Your task to perform on an android device: Open calendar and show me the second week of next month Image 0: 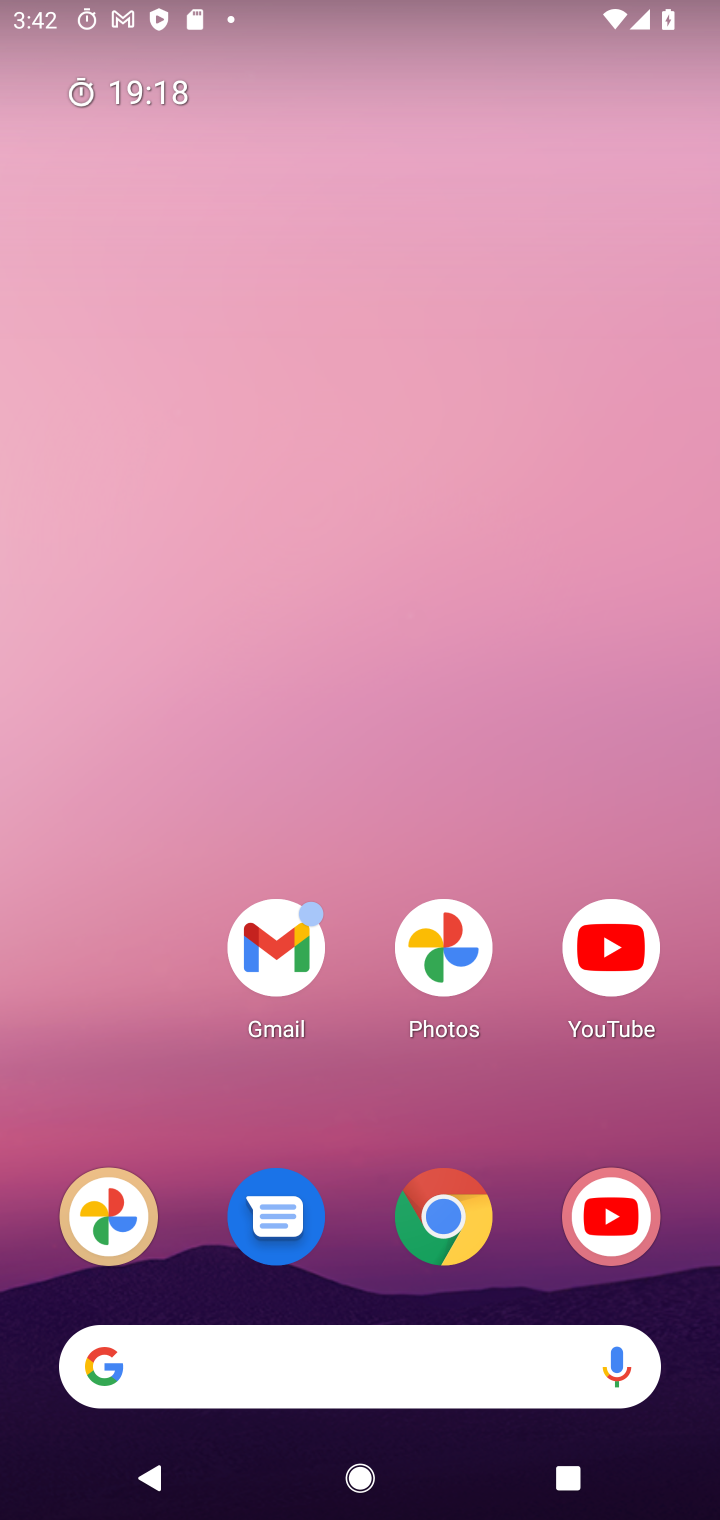
Step 0: drag from (392, 584) to (538, 326)
Your task to perform on an android device: Open calendar and show me the second week of next month Image 1: 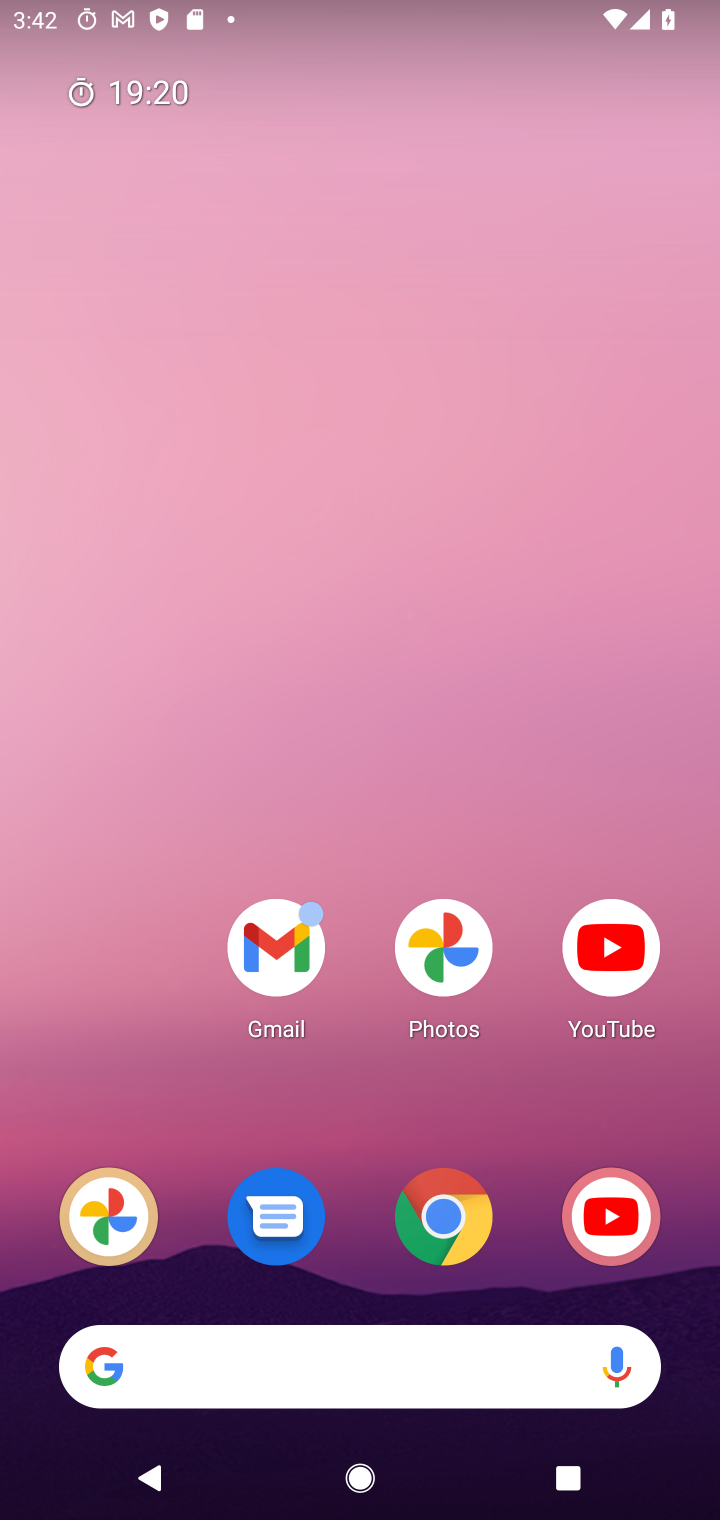
Step 1: drag from (1, 1410) to (635, 321)
Your task to perform on an android device: Open calendar and show me the second week of next month Image 2: 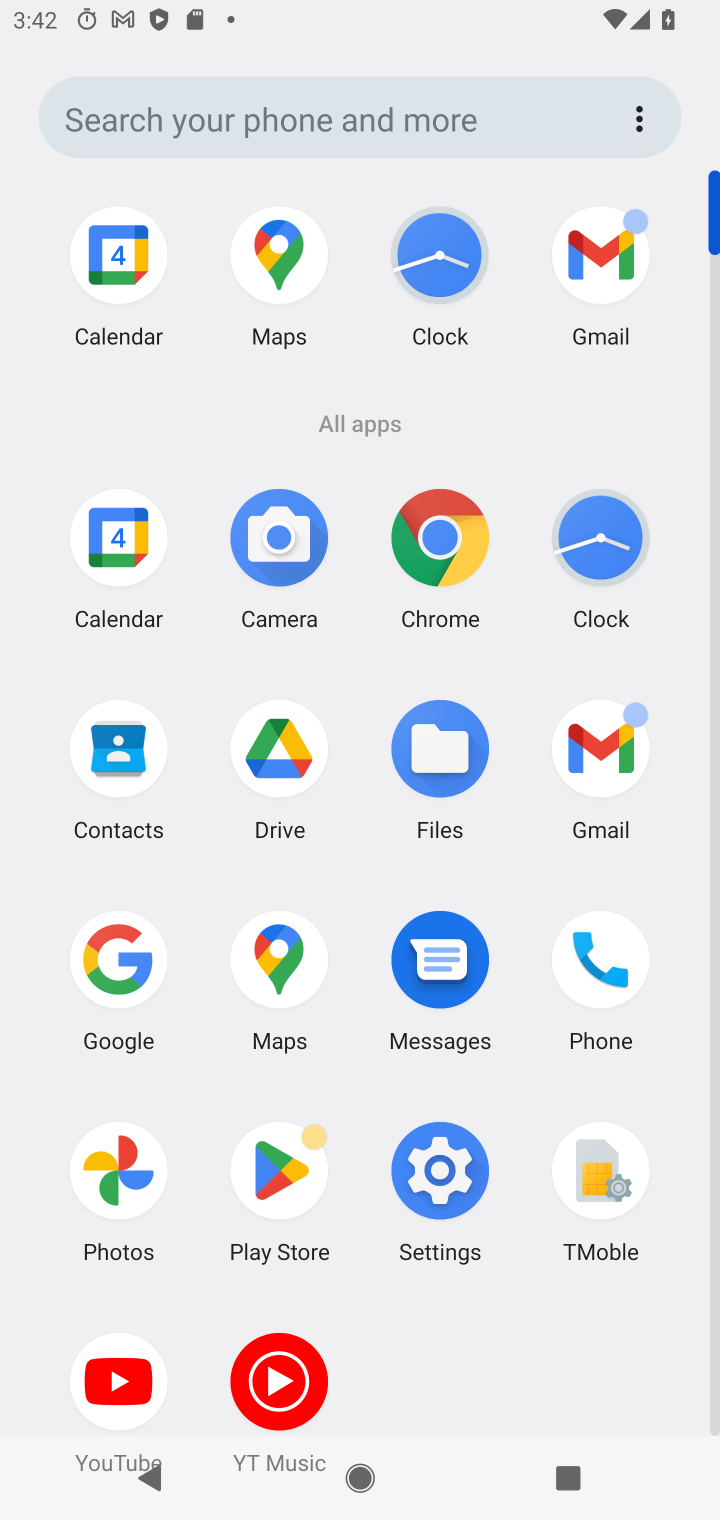
Step 2: click (108, 550)
Your task to perform on an android device: Open calendar and show me the second week of next month Image 3: 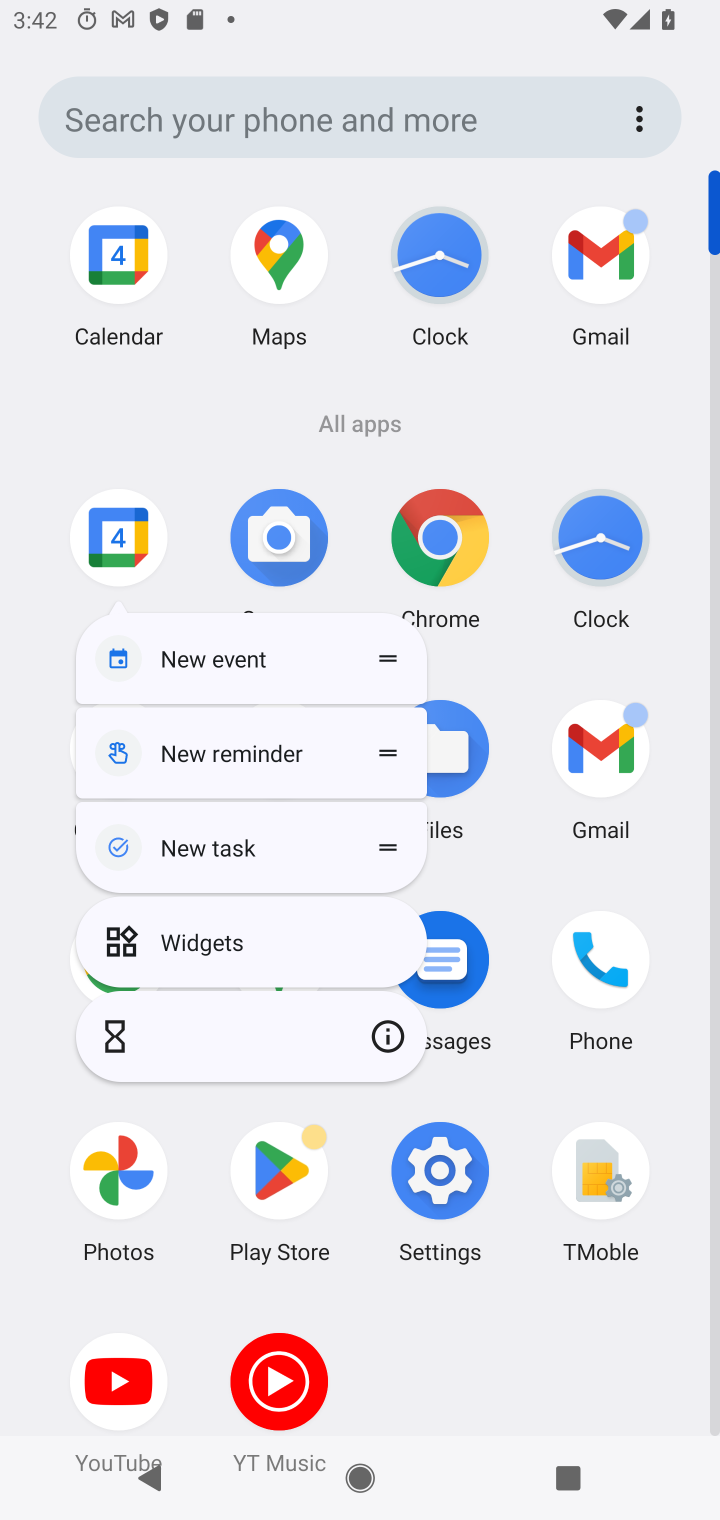
Step 3: click (108, 550)
Your task to perform on an android device: Open calendar and show me the second week of next month Image 4: 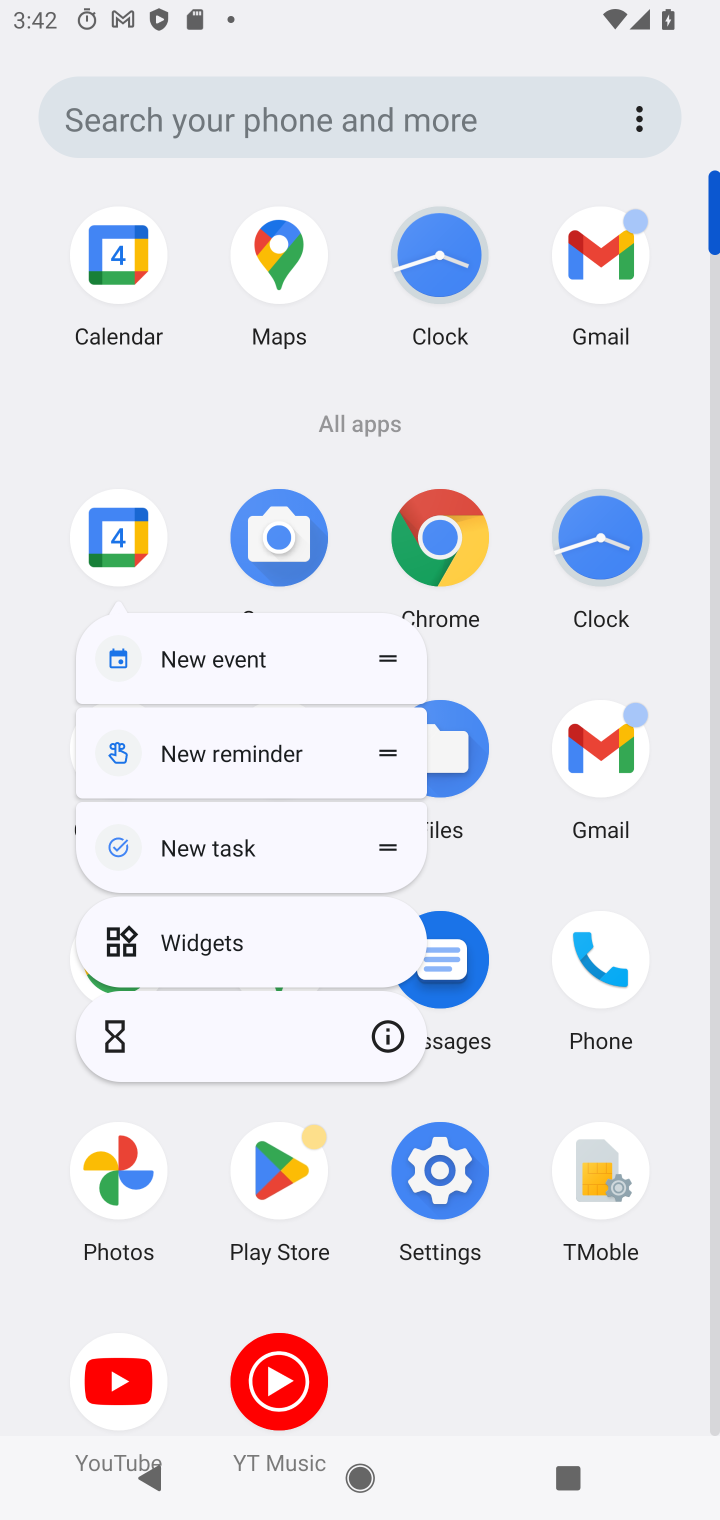
Step 4: click (143, 274)
Your task to perform on an android device: Open calendar and show me the second week of next month Image 5: 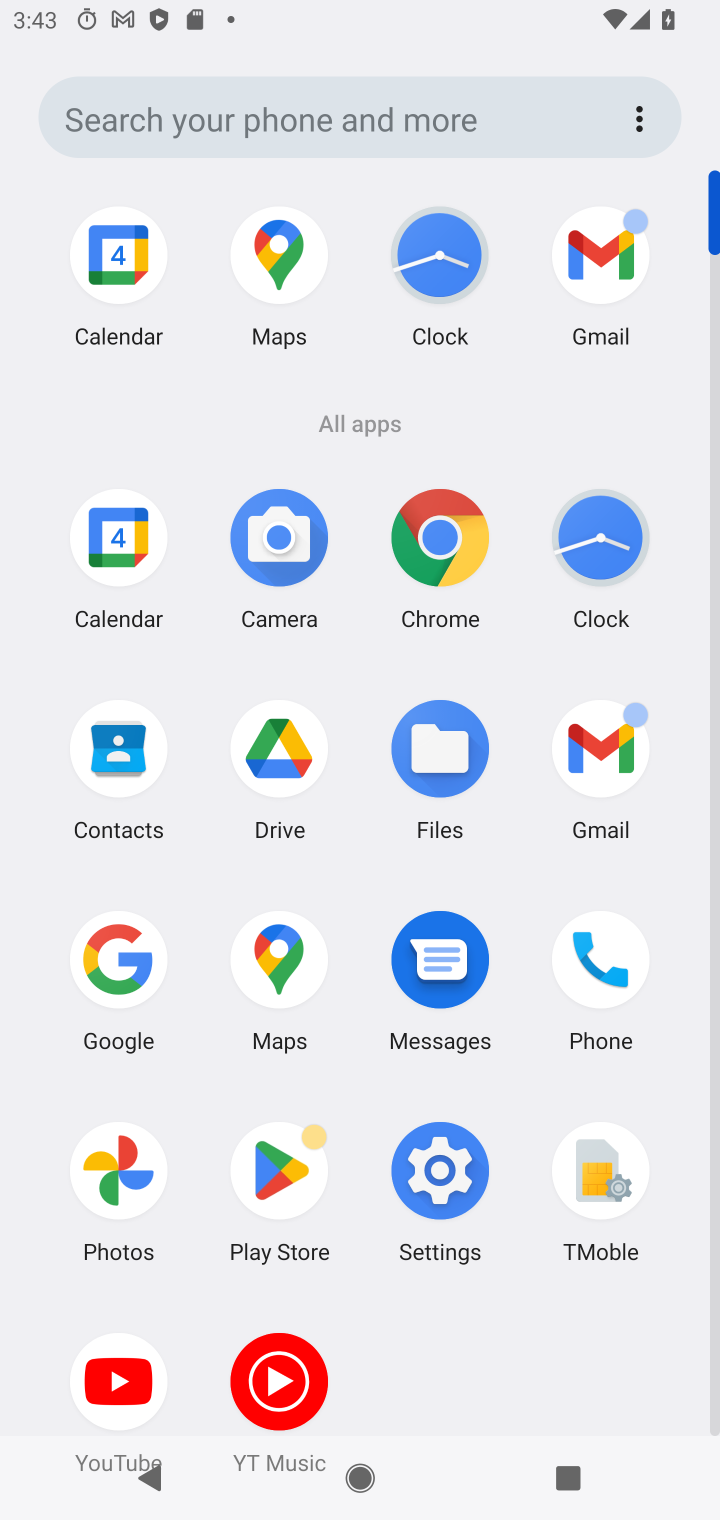
Step 5: click (124, 251)
Your task to perform on an android device: Open calendar and show me the second week of next month Image 6: 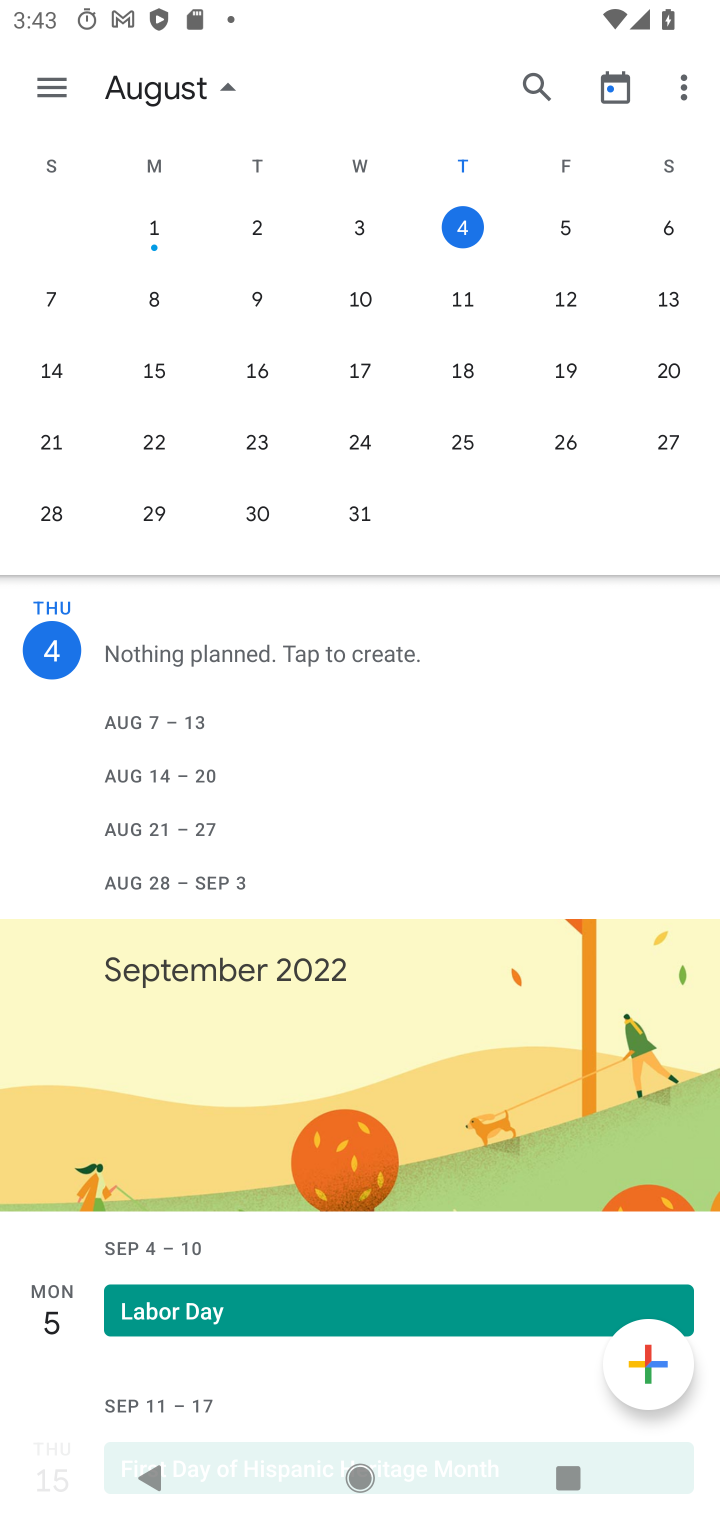
Step 6: task complete